Your task to perform on an android device: open app "Viber Messenger" (install if not already installed) Image 0: 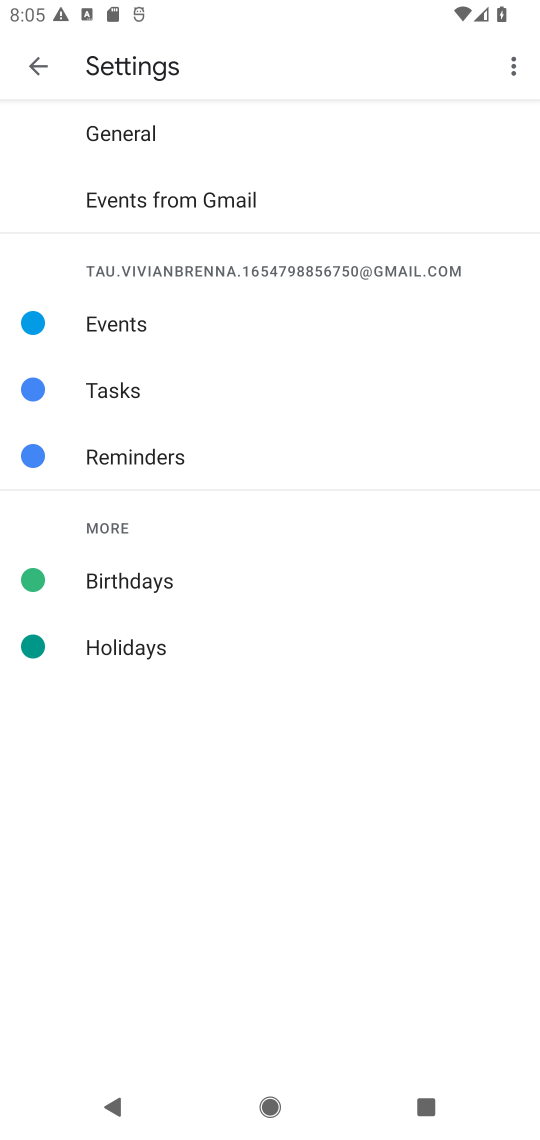
Step 0: press home button
Your task to perform on an android device: open app "Viber Messenger" (install if not already installed) Image 1: 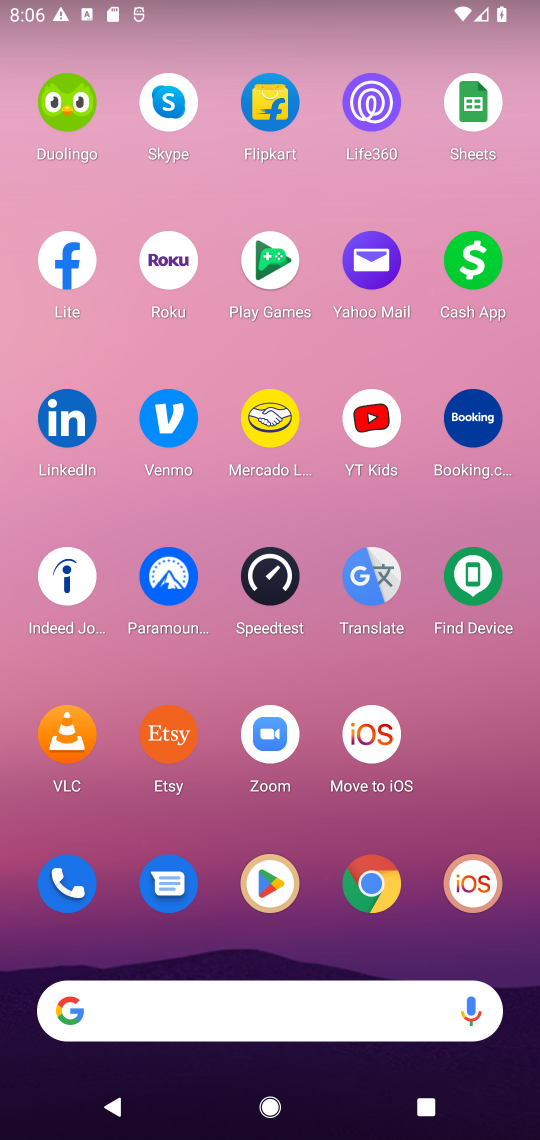
Step 1: click (274, 895)
Your task to perform on an android device: open app "Viber Messenger" (install if not already installed) Image 2: 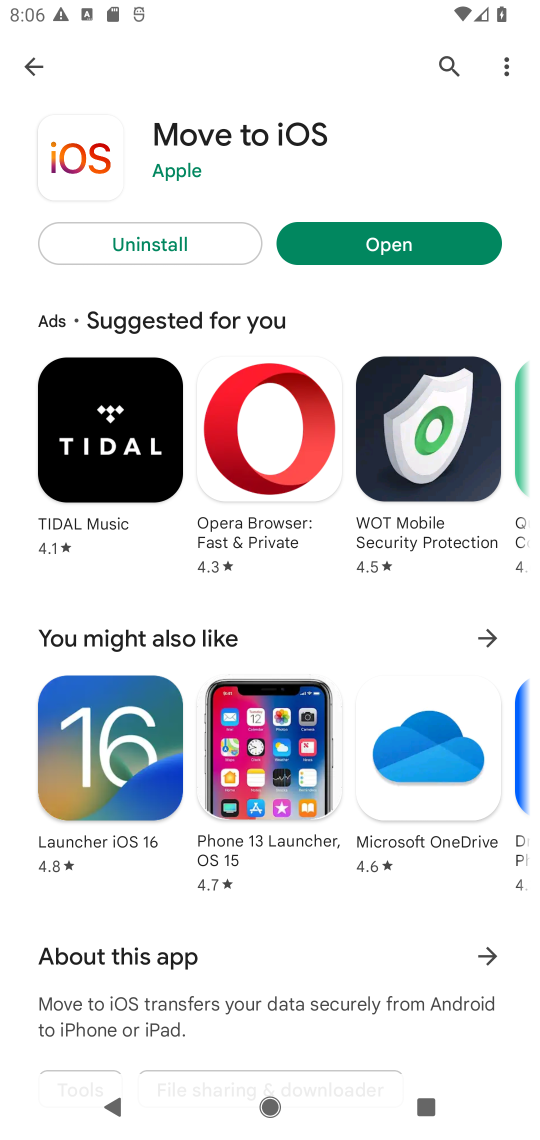
Step 2: click (446, 62)
Your task to perform on an android device: open app "Viber Messenger" (install if not already installed) Image 3: 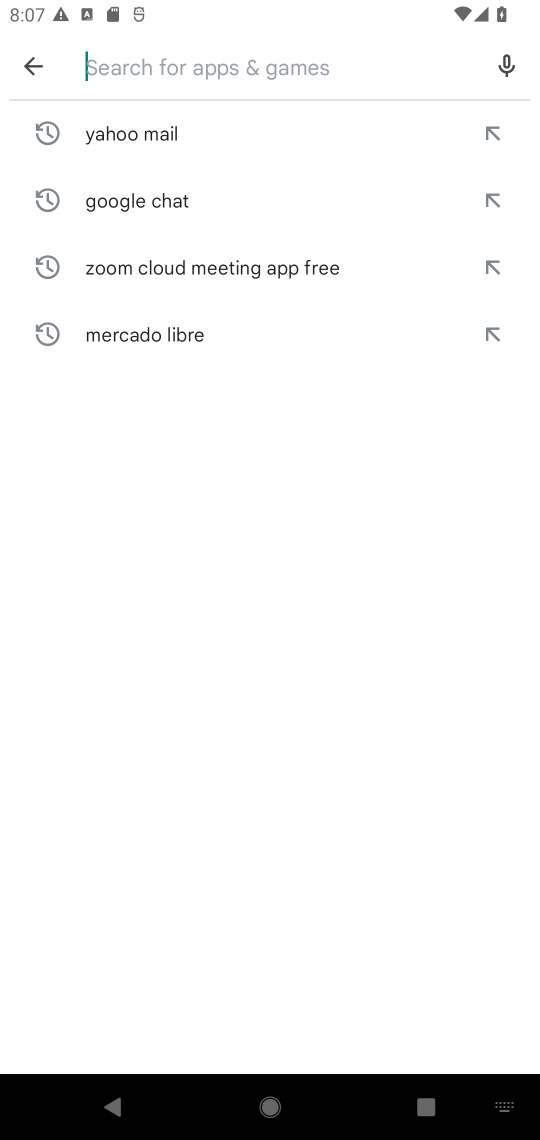
Step 3: type "Viber Messenge"
Your task to perform on an android device: open app "Viber Messenger" (install if not already installed) Image 4: 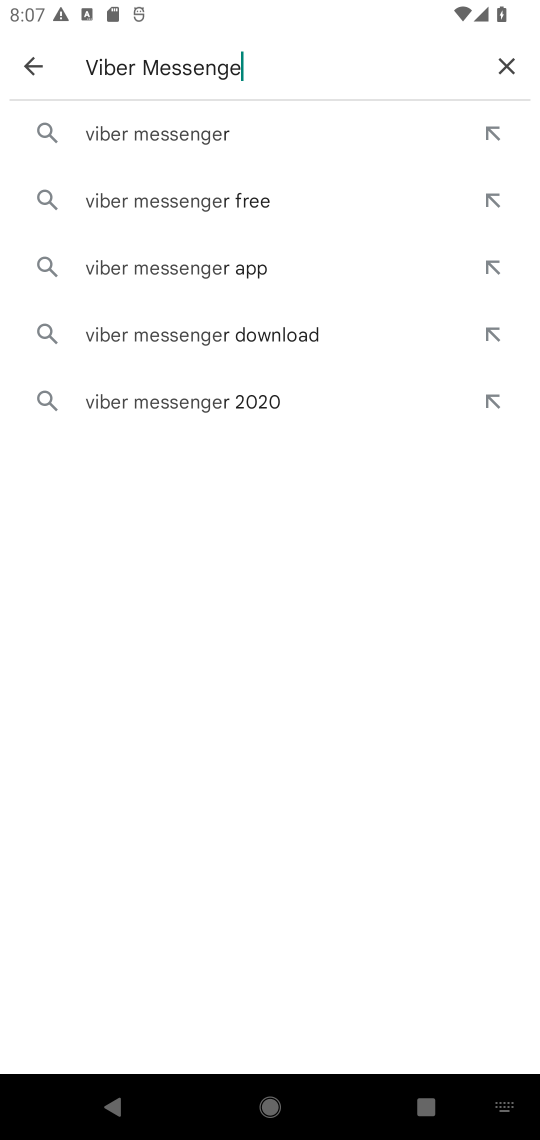
Step 4: click (99, 134)
Your task to perform on an android device: open app "Viber Messenger" (install if not already installed) Image 5: 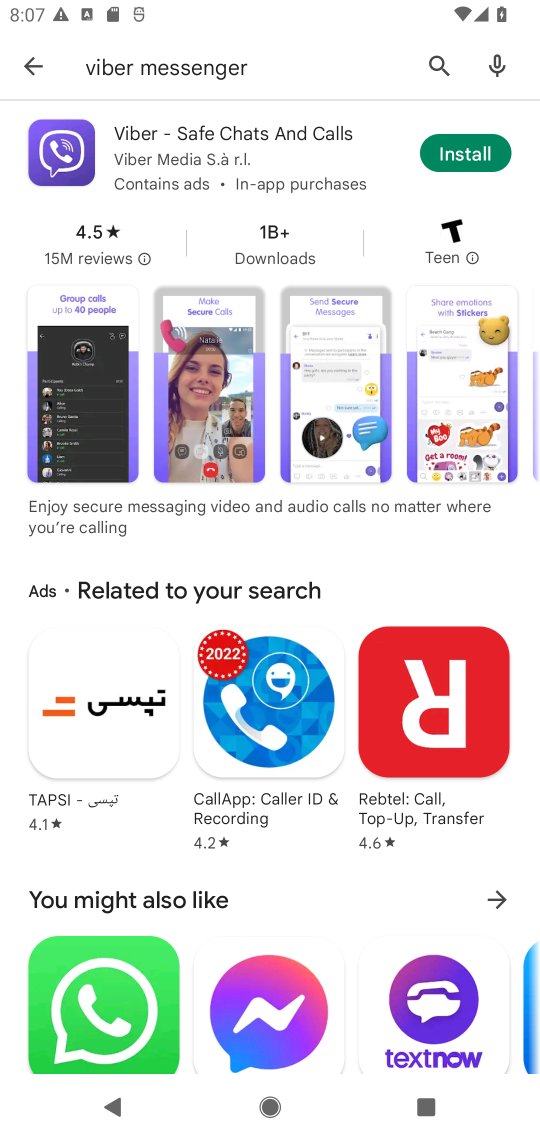
Step 5: click (465, 158)
Your task to perform on an android device: open app "Viber Messenger" (install if not already installed) Image 6: 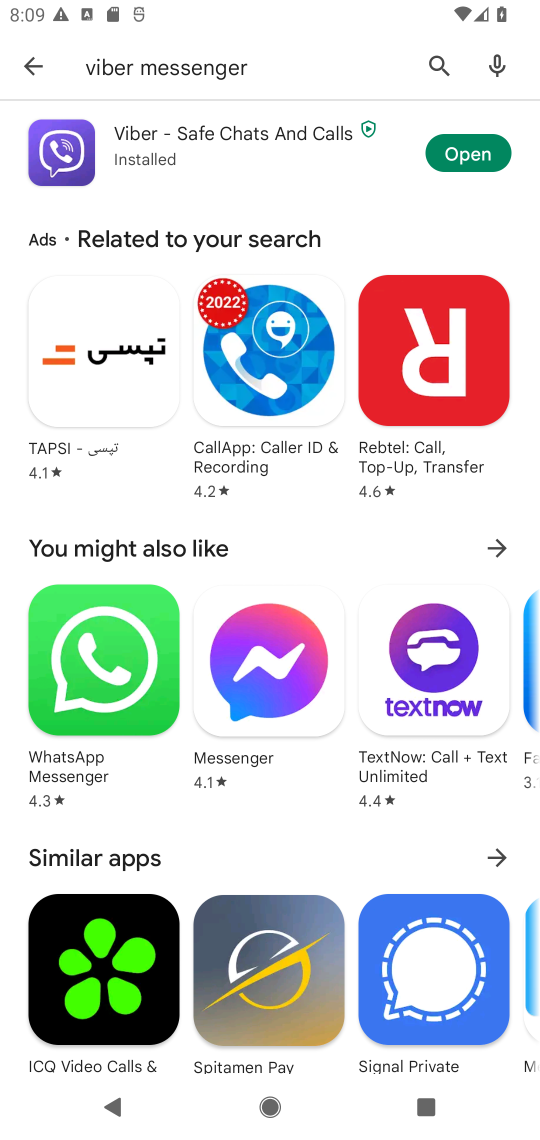
Step 6: click (474, 150)
Your task to perform on an android device: open app "Viber Messenger" (install if not already installed) Image 7: 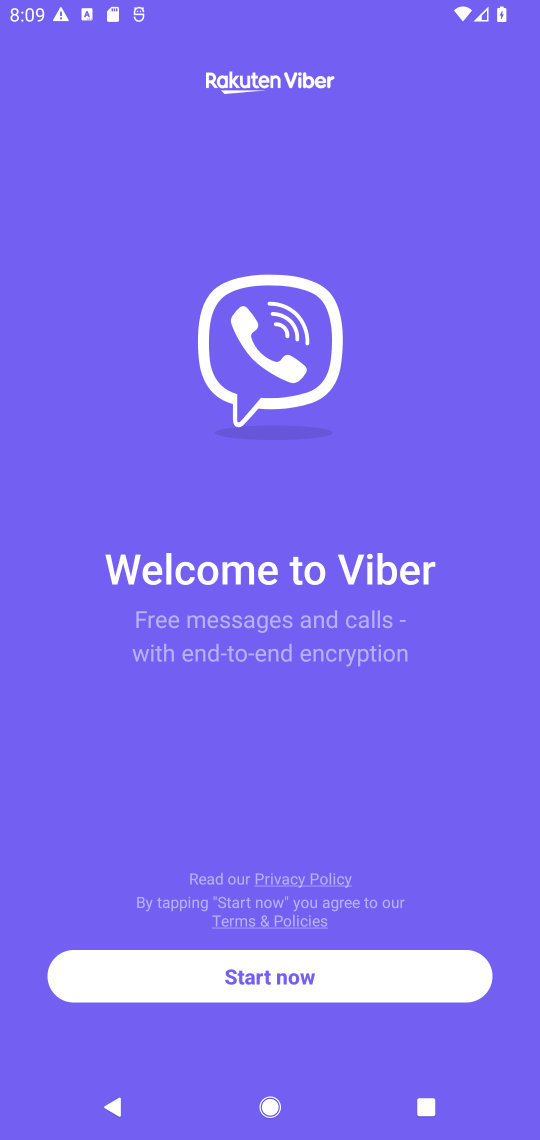
Step 7: task complete